Your task to perform on an android device: add a contact in the contacts app Image 0: 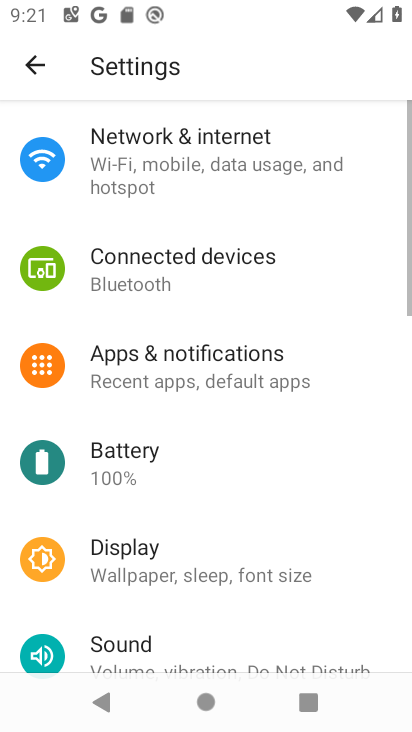
Step 0: press home button
Your task to perform on an android device: add a contact in the contacts app Image 1: 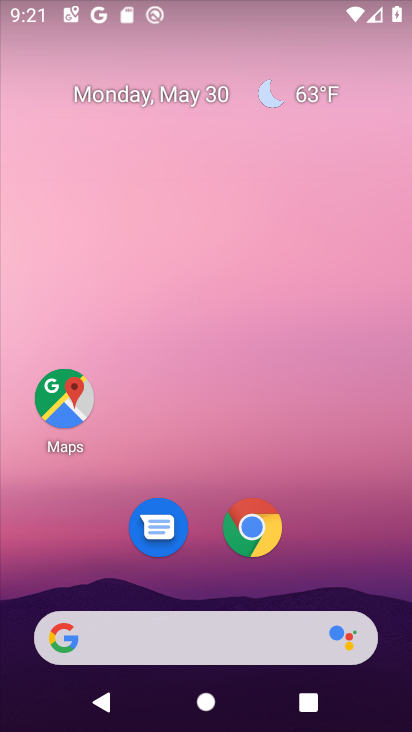
Step 1: drag from (196, 544) to (218, 192)
Your task to perform on an android device: add a contact in the contacts app Image 2: 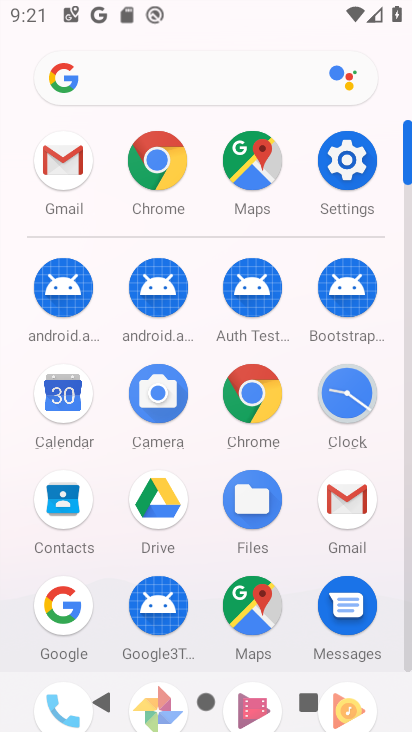
Step 2: drag from (301, 498) to (301, 290)
Your task to perform on an android device: add a contact in the contacts app Image 3: 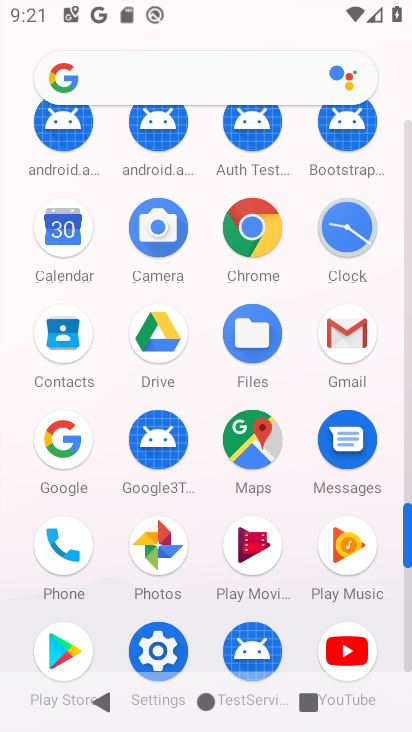
Step 3: click (48, 548)
Your task to perform on an android device: add a contact in the contacts app Image 4: 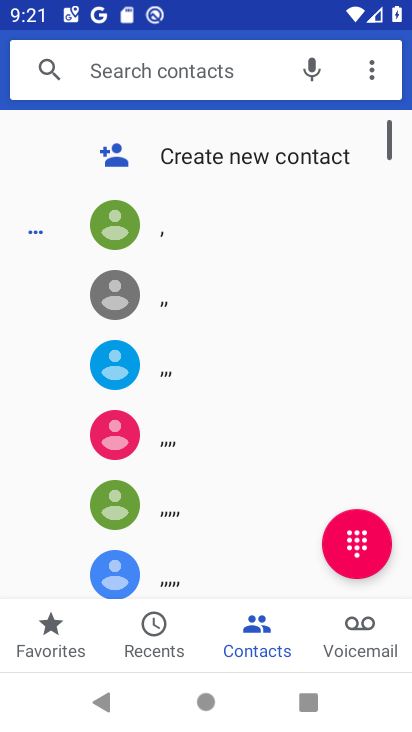
Step 4: click (206, 156)
Your task to perform on an android device: add a contact in the contacts app Image 5: 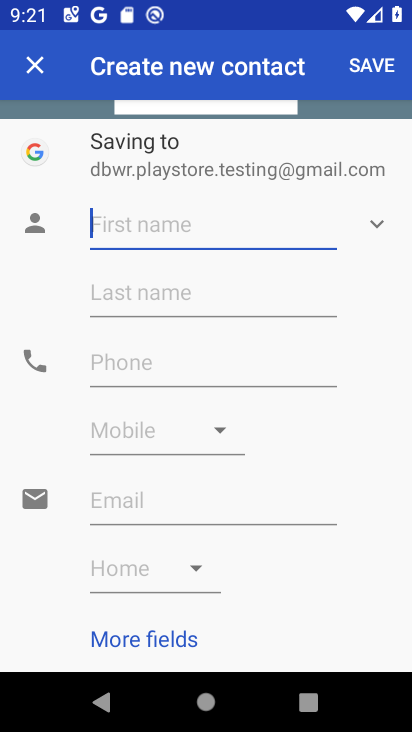
Step 5: type "ccvvcvc"
Your task to perform on an android device: add a contact in the contacts app Image 6: 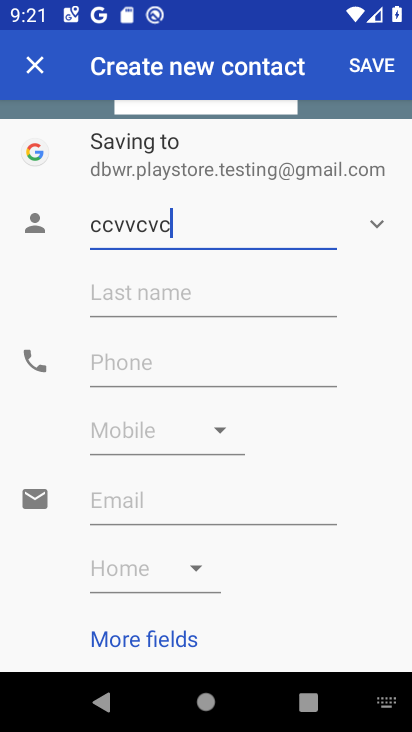
Step 6: click (213, 348)
Your task to perform on an android device: add a contact in the contacts app Image 7: 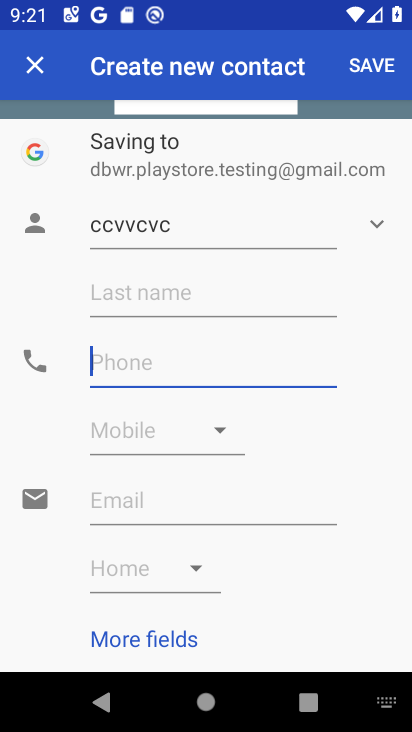
Step 7: click (204, 350)
Your task to perform on an android device: add a contact in the contacts app Image 8: 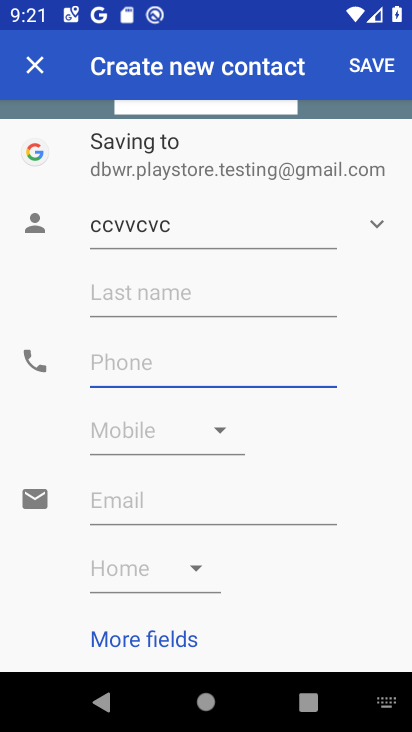
Step 8: type "345678"
Your task to perform on an android device: add a contact in the contacts app Image 9: 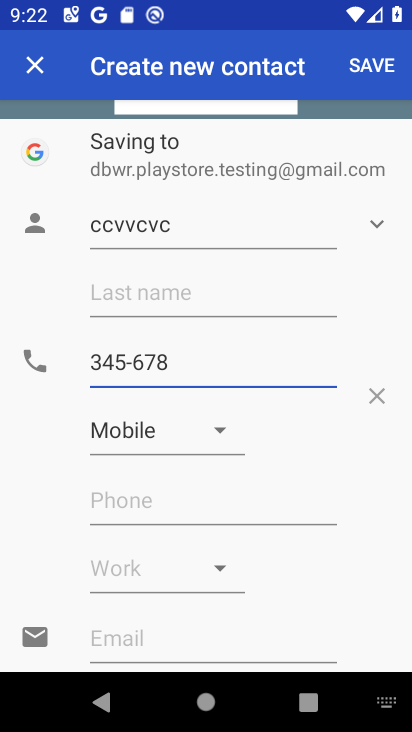
Step 9: click (368, 64)
Your task to perform on an android device: add a contact in the contacts app Image 10: 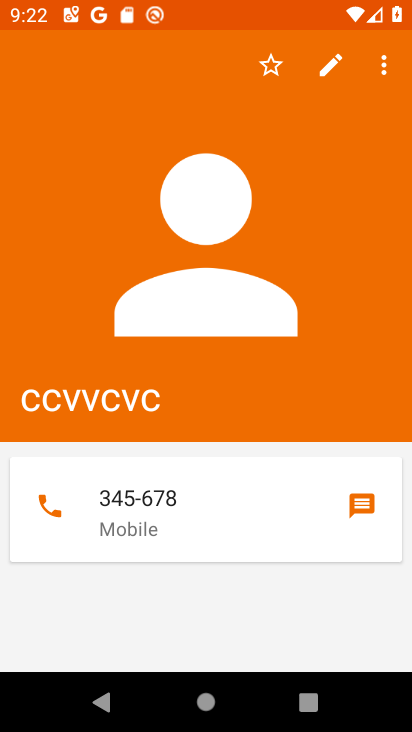
Step 10: task complete